Your task to perform on an android device: toggle location history Image 0: 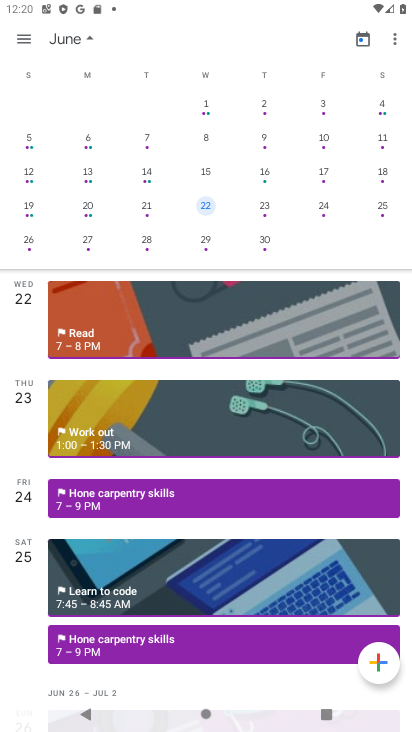
Step 0: press home button
Your task to perform on an android device: toggle location history Image 1: 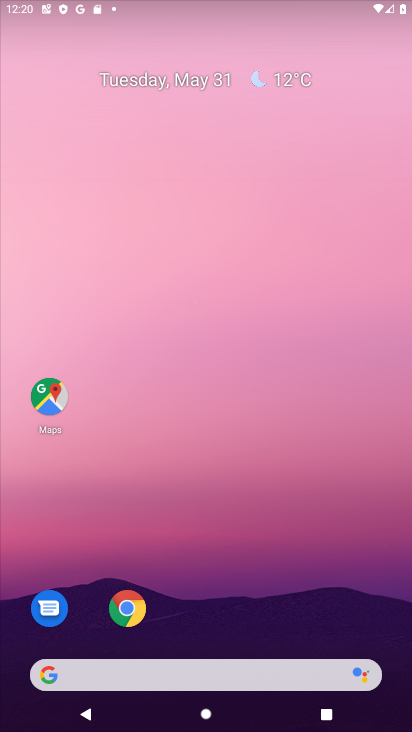
Step 1: drag from (209, 603) to (290, 47)
Your task to perform on an android device: toggle location history Image 2: 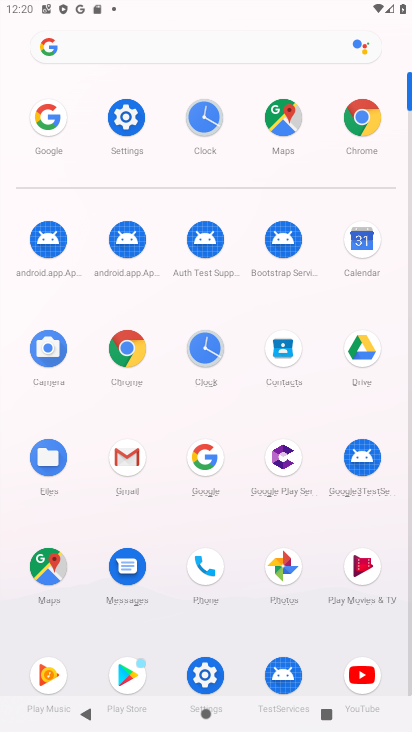
Step 2: click (122, 118)
Your task to perform on an android device: toggle location history Image 3: 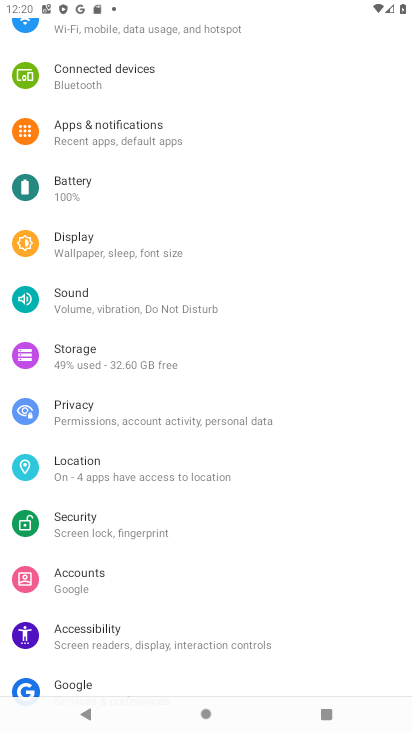
Step 3: click (83, 468)
Your task to perform on an android device: toggle location history Image 4: 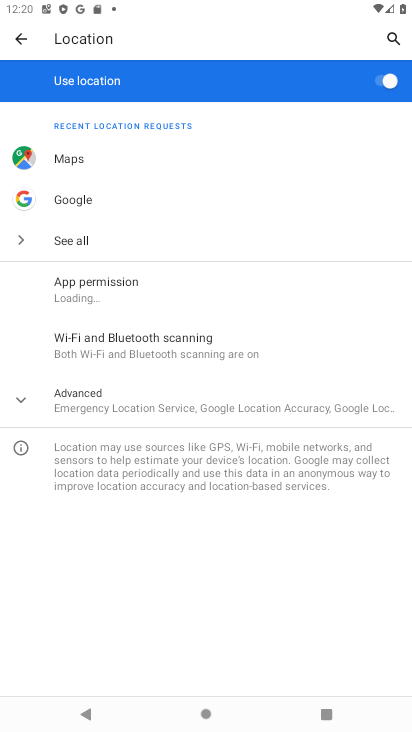
Step 4: click (89, 399)
Your task to perform on an android device: toggle location history Image 5: 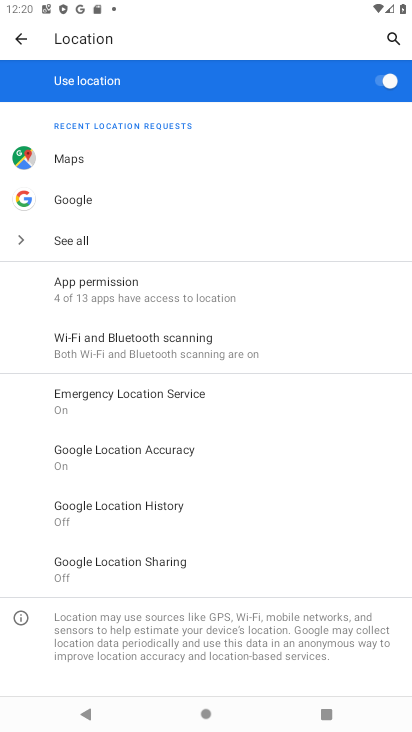
Step 5: click (94, 511)
Your task to perform on an android device: toggle location history Image 6: 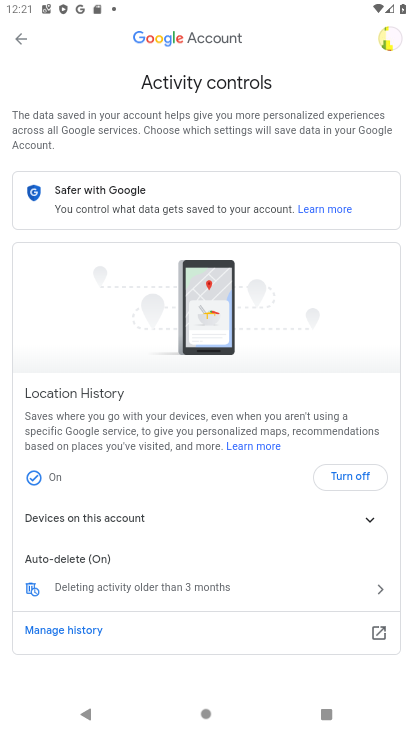
Step 6: drag from (202, 532) to (253, 218)
Your task to perform on an android device: toggle location history Image 7: 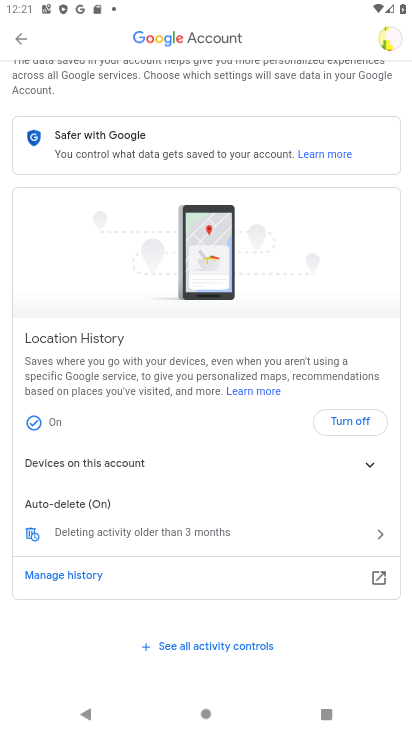
Step 7: click (333, 426)
Your task to perform on an android device: toggle location history Image 8: 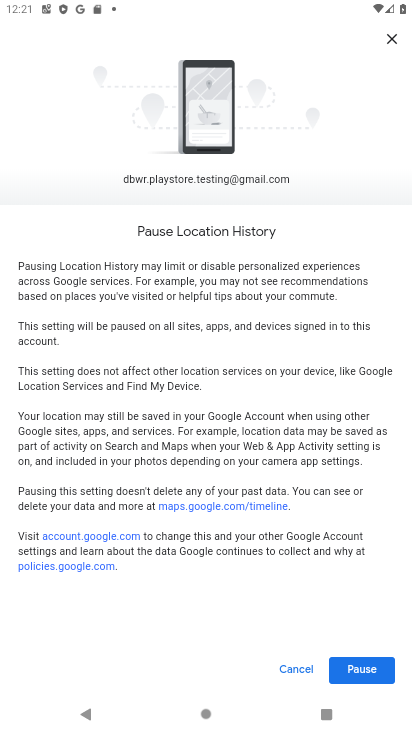
Step 8: click (355, 668)
Your task to perform on an android device: toggle location history Image 9: 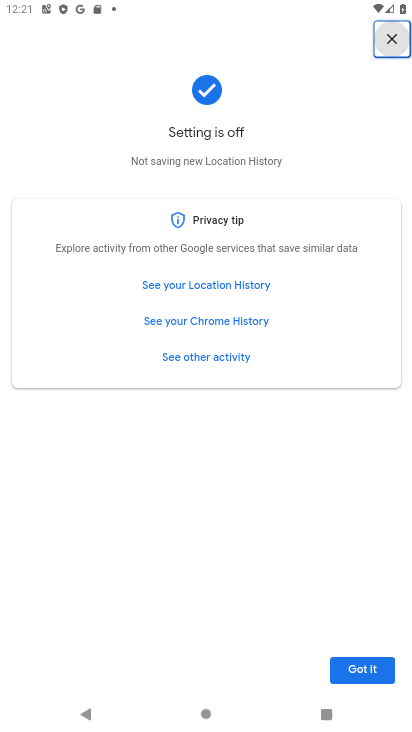
Step 9: click (358, 665)
Your task to perform on an android device: toggle location history Image 10: 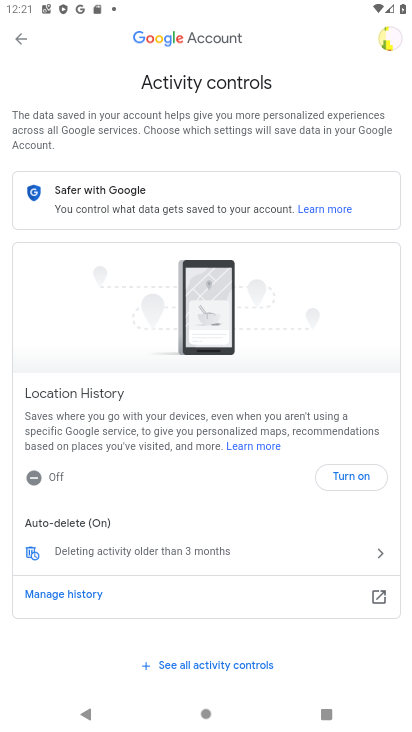
Step 10: task complete